Your task to perform on an android device: open a bookmark in the chrome app Image 0: 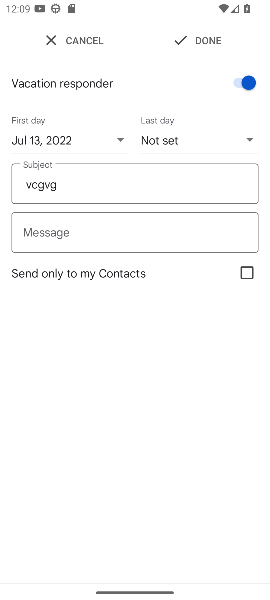
Step 0: press home button
Your task to perform on an android device: open a bookmark in the chrome app Image 1: 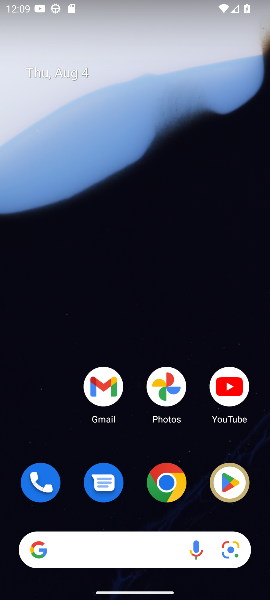
Step 1: click (181, 476)
Your task to perform on an android device: open a bookmark in the chrome app Image 2: 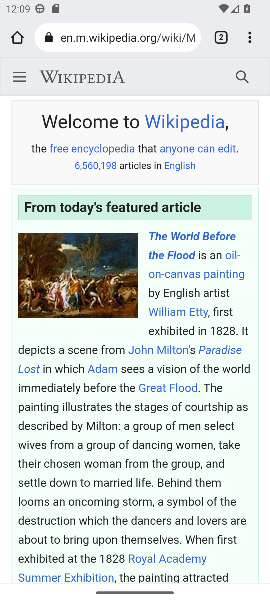
Step 2: click (249, 40)
Your task to perform on an android device: open a bookmark in the chrome app Image 3: 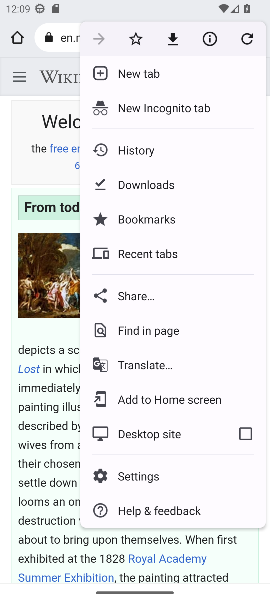
Step 3: click (158, 219)
Your task to perform on an android device: open a bookmark in the chrome app Image 4: 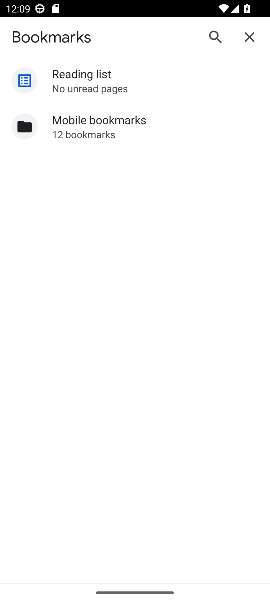
Step 4: click (107, 131)
Your task to perform on an android device: open a bookmark in the chrome app Image 5: 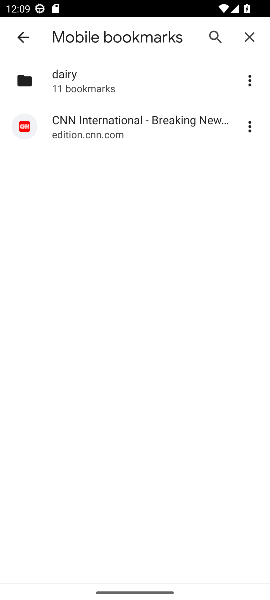
Step 5: click (107, 131)
Your task to perform on an android device: open a bookmark in the chrome app Image 6: 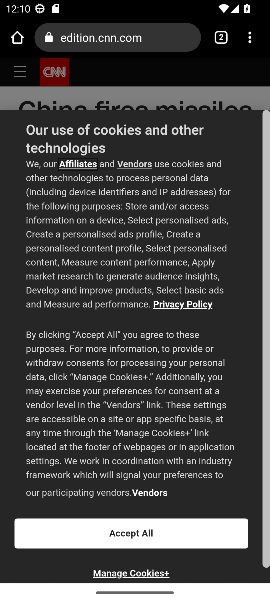
Step 6: task complete